Your task to perform on an android device: Go to Google Image 0: 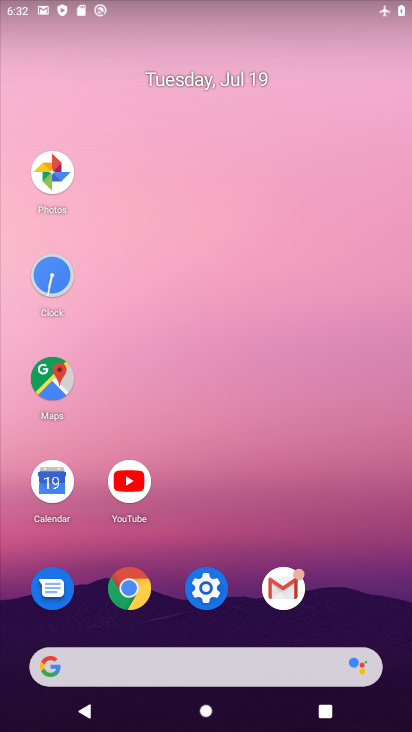
Step 0: click (52, 369)
Your task to perform on an android device: Go to Google Image 1: 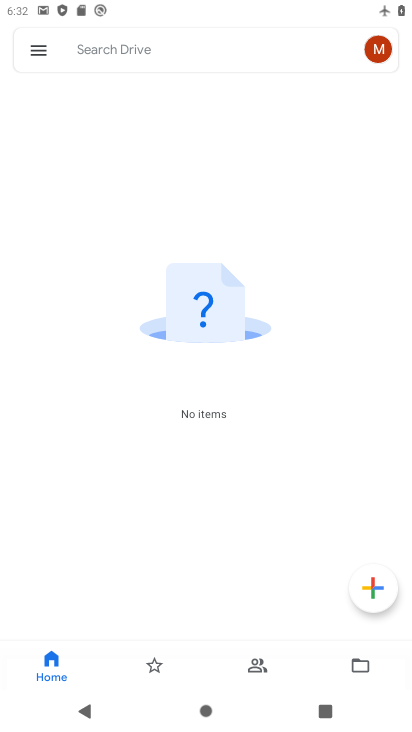
Step 1: press home button
Your task to perform on an android device: Go to Google Image 2: 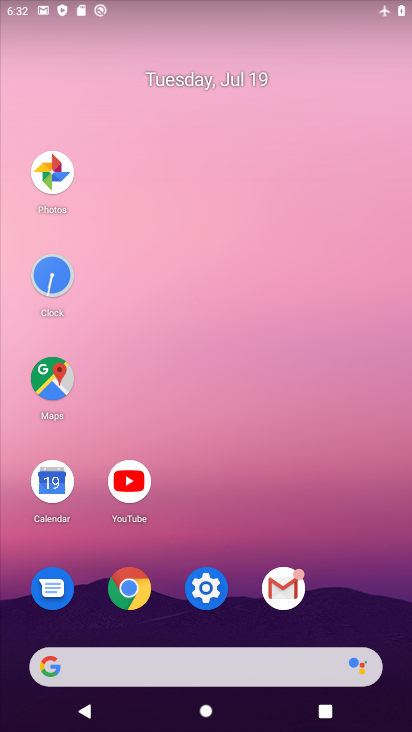
Step 2: click (47, 667)
Your task to perform on an android device: Go to Google Image 3: 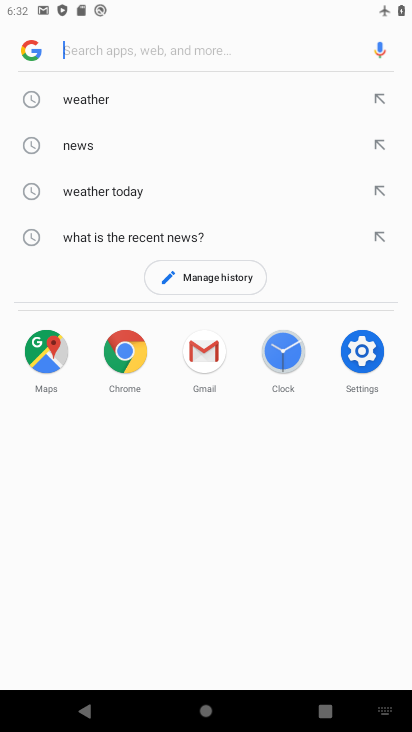
Step 3: task complete